Your task to perform on an android device: search for starred emails in the gmail app Image 0: 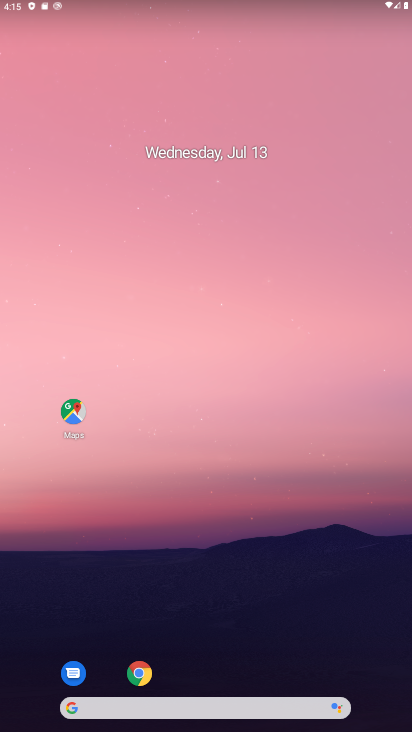
Step 0: drag from (279, 619) to (165, 94)
Your task to perform on an android device: search for starred emails in the gmail app Image 1: 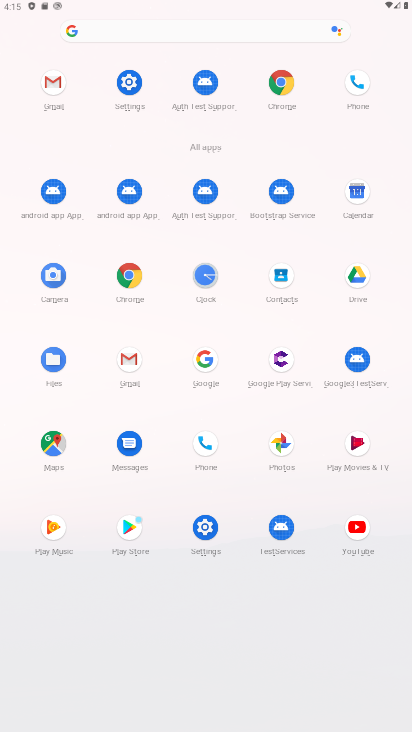
Step 1: click (125, 356)
Your task to perform on an android device: search for starred emails in the gmail app Image 2: 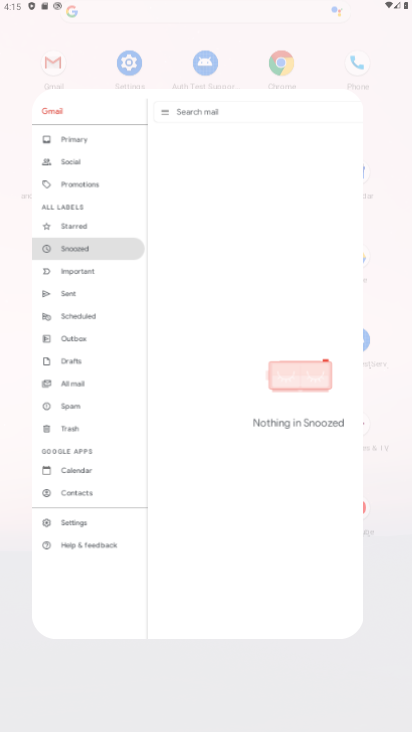
Step 2: click (126, 360)
Your task to perform on an android device: search for starred emails in the gmail app Image 3: 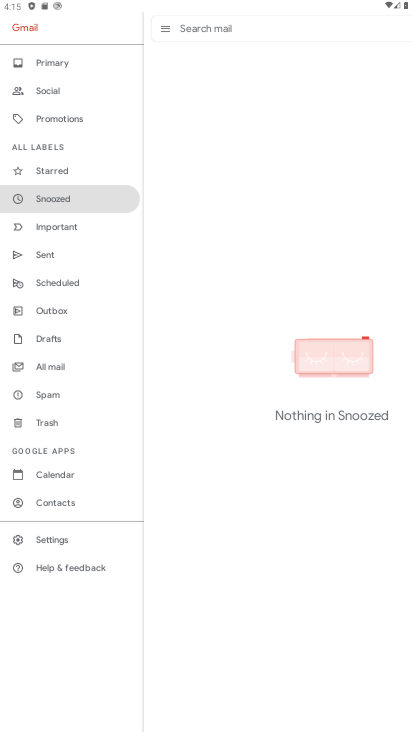
Step 3: click (126, 360)
Your task to perform on an android device: search for starred emails in the gmail app Image 4: 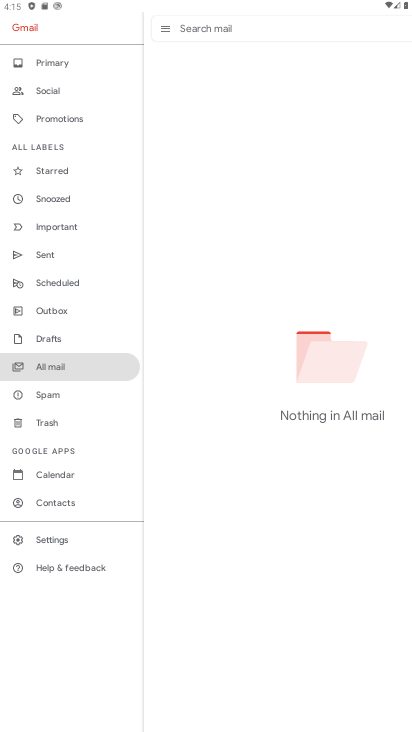
Step 4: click (45, 166)
Your task to perform on an android device: search for starred emails in the gmail app Image 5: 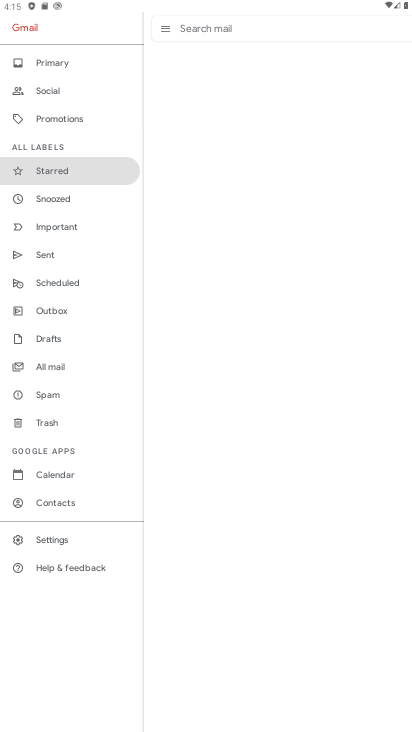
Step 5: click (49, 168)
Your task to perform on an android device: search for starred emails in the gmail app Image 6: 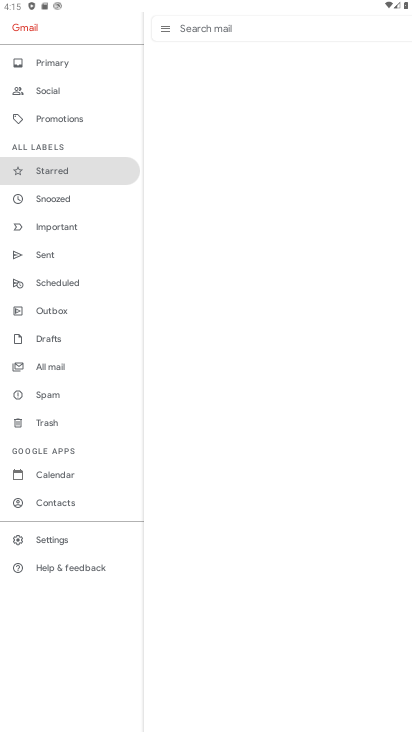
Step 6: click (71, 169)
Your task to perform on an android device: search for starred emails in the gmail app Image 7: 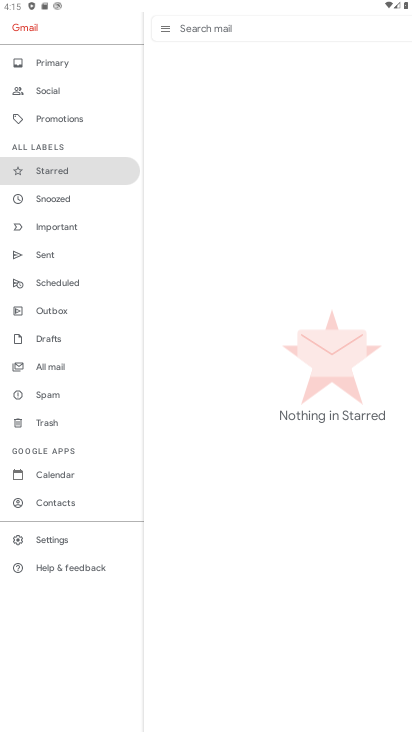
Step 7: task complete